Your task to perform on an android device: Play the last video I watched on Youtube Image 0: 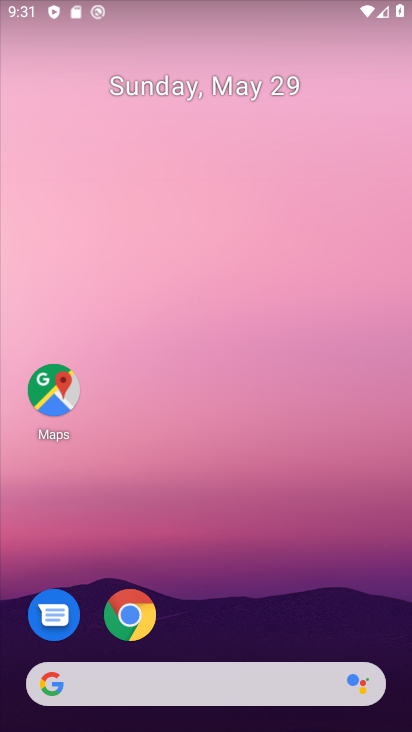
Step 0: drag from (202, 651) to (116, 83)
Your task to perform on an android device: Play the last video I watched on Youtube Image 1: 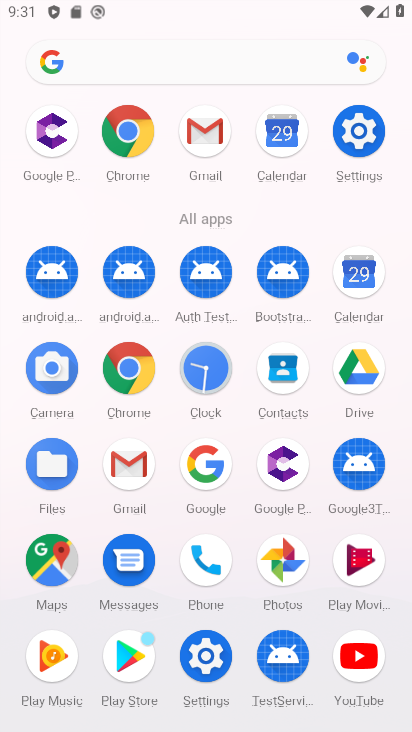
Step 1: click (355, 662)
Your task to perform on an android device: Play the last video I watched on Youtube Image 2: 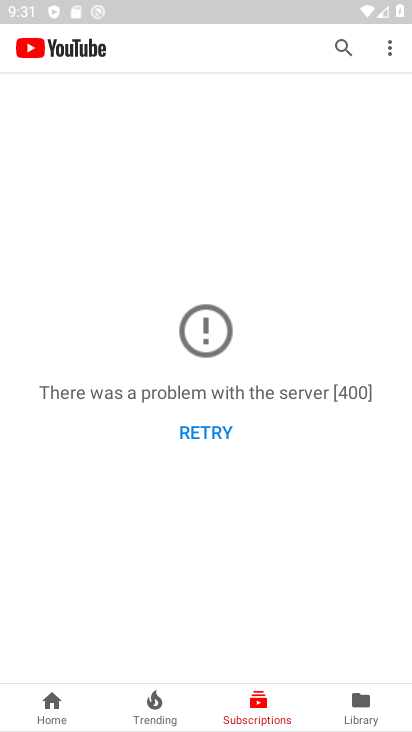
Step 2: click (371, 706)
Your task to perform on an android device: Play the last video I watched on Youtube Image 3: 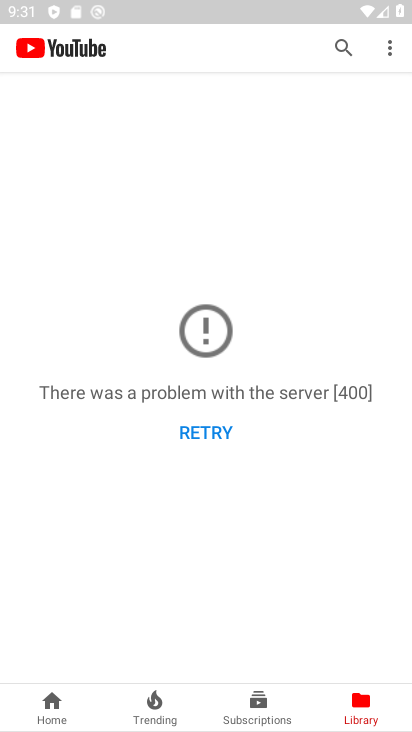
Step 3: task complete